Your task to perform on an android device: open app "YouTube Kids" (install if not already installed) Image 0: 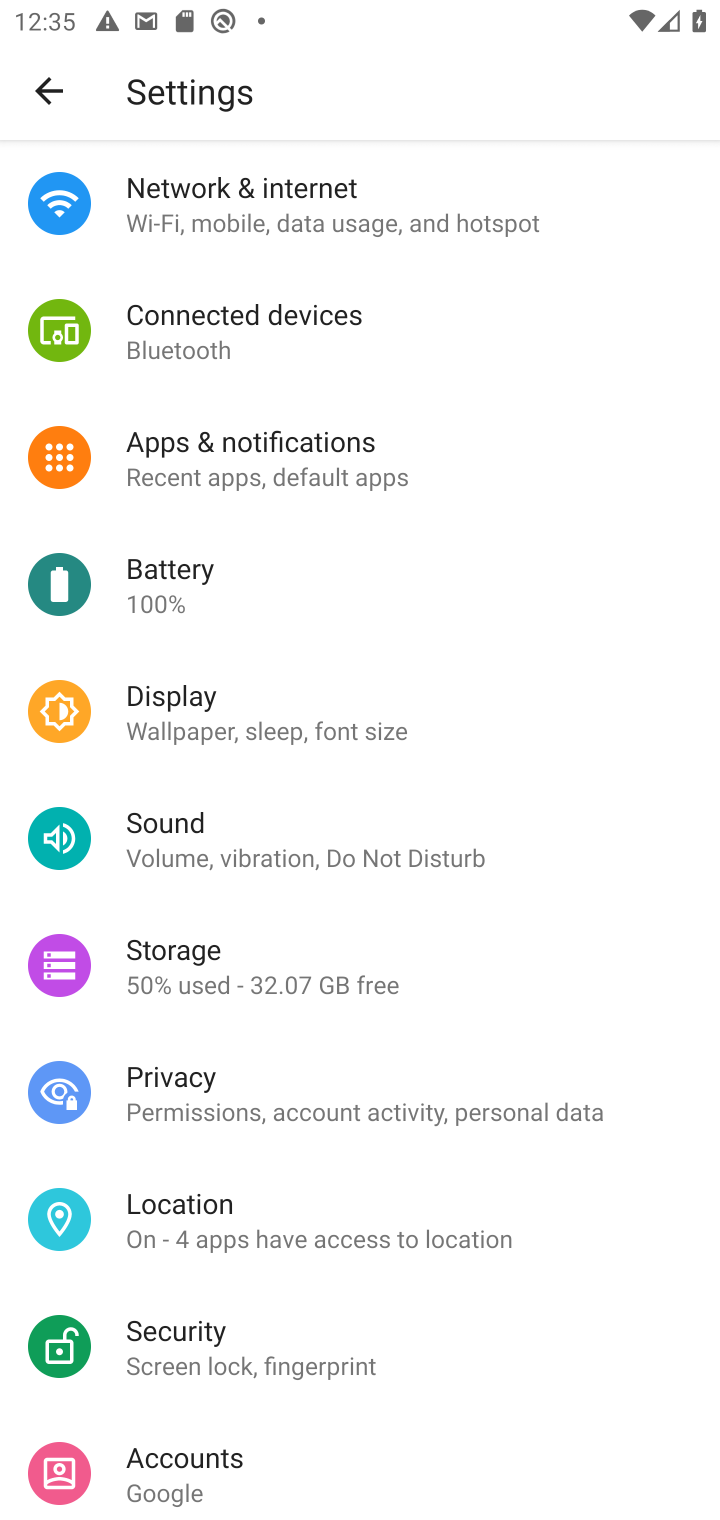
Step 0: press home button
Your task to perform on an android device: open app "YouTube Kids" (install if not already installed) Image 1: 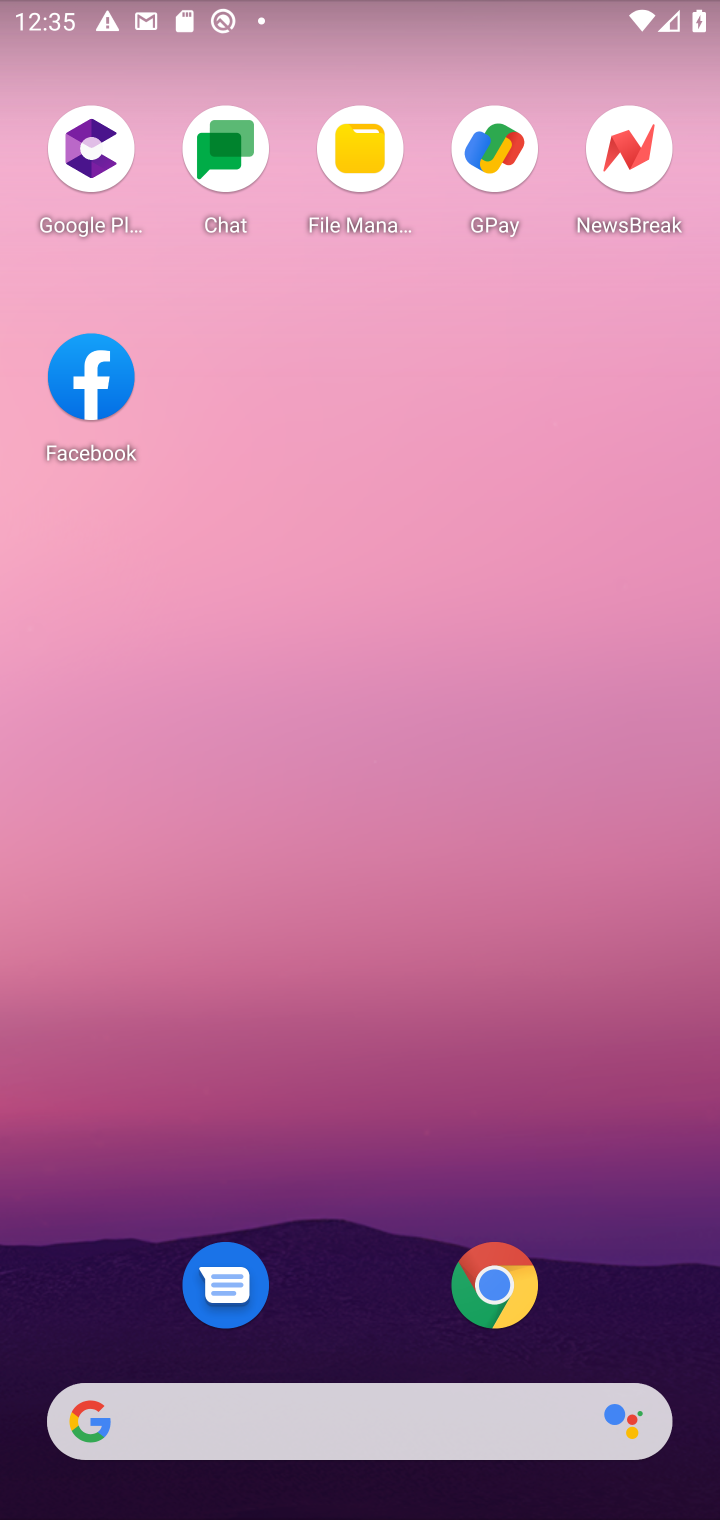
Step 1: drag from (356, 1180) to (472, 19)
Your task to perform on an android device: open app "YouTube Kids" (install if not already installed) Image 2: 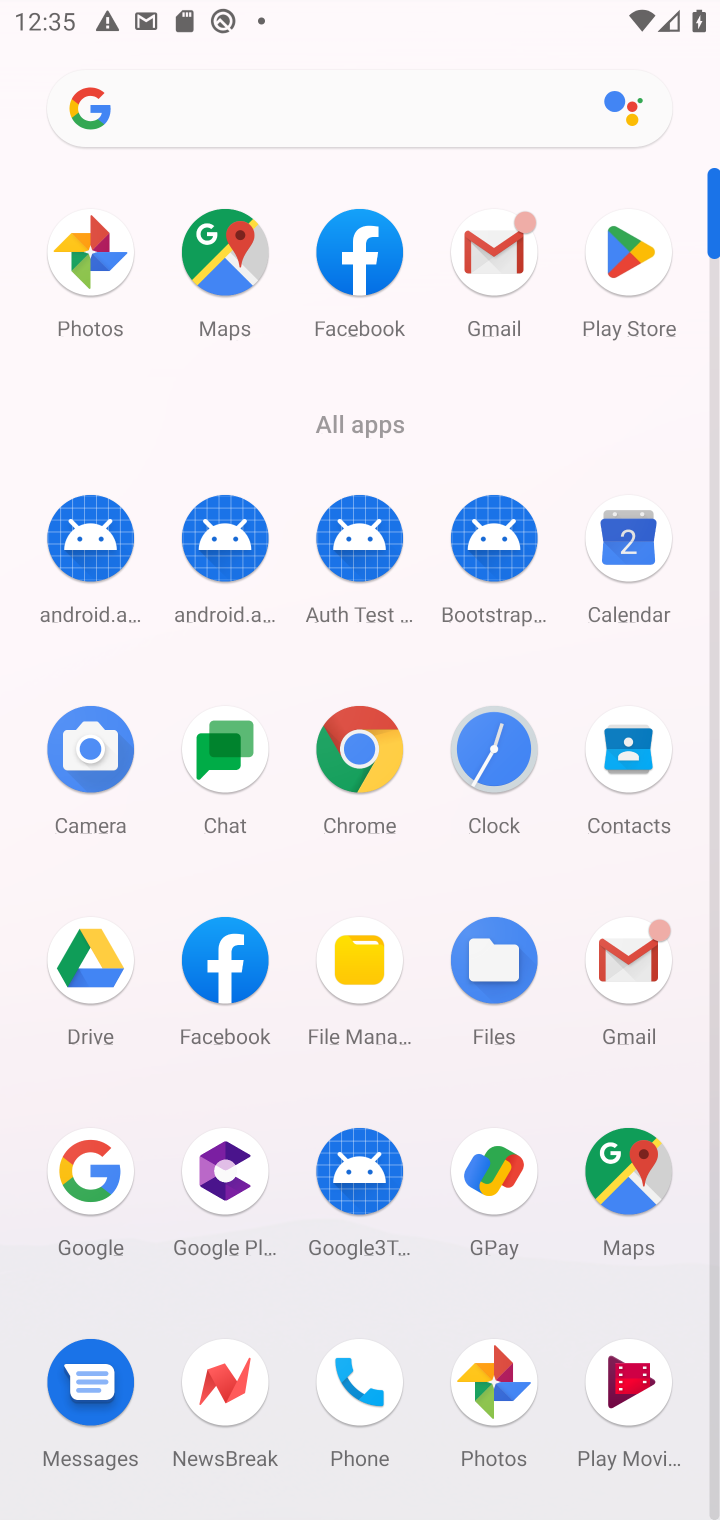
Step 2: drag from (425, 1361) to (500, 190)
Your task to perform on an android device: open app "YouTube Kids" (install if not already installed) Image 3: 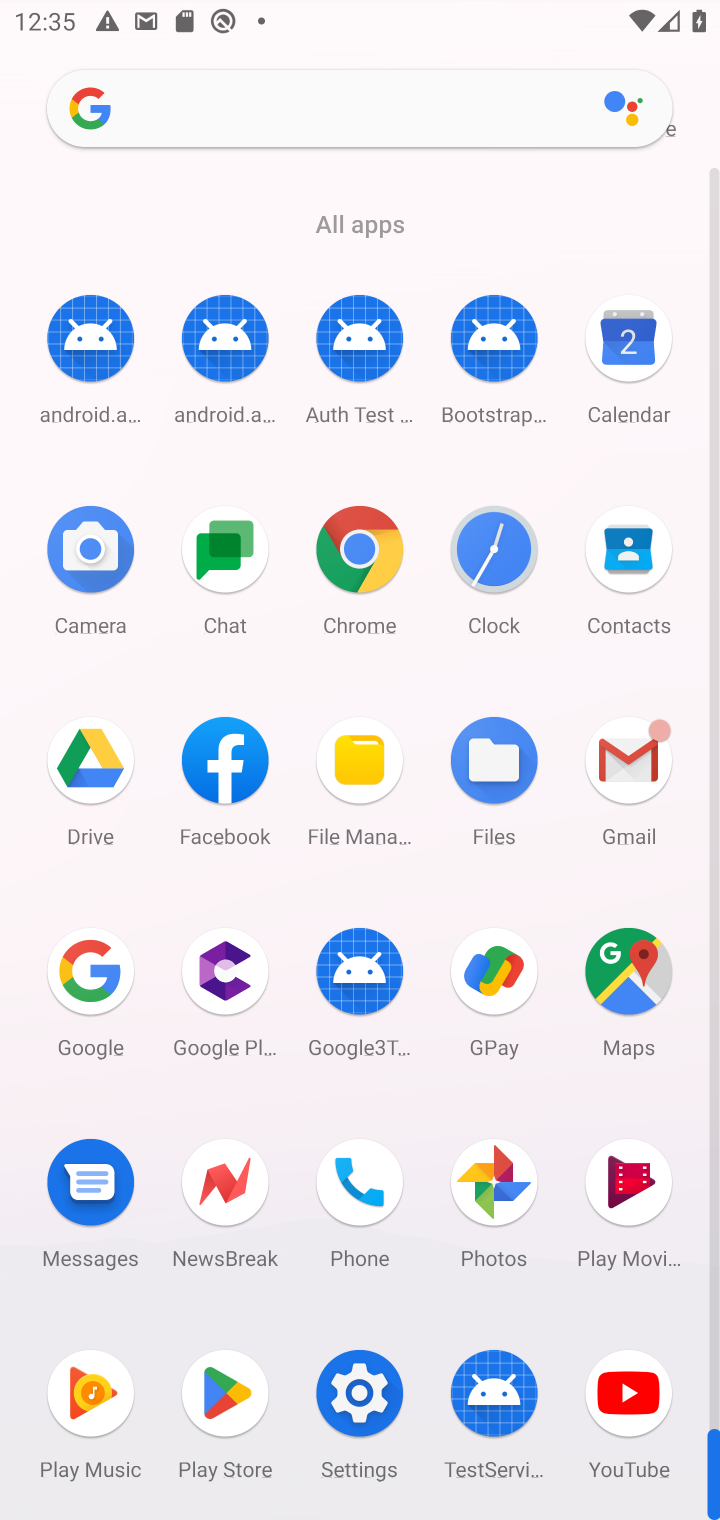
Step 3: click (626, 1382)
Your task to perform on an android device: open app "YouTube Kids" (install if not already installed) Image 4: 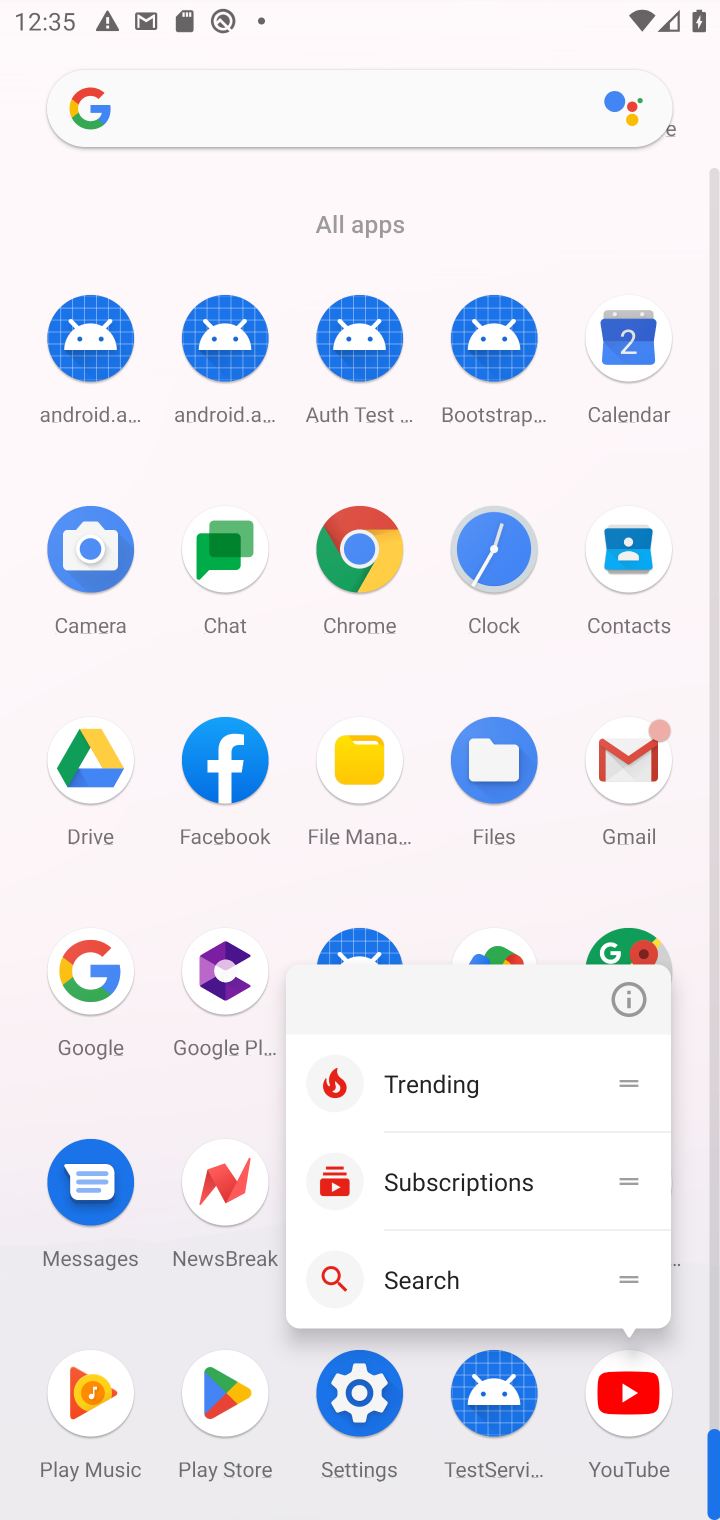
Step 4: click (619, 1405)
Your task to perform on an android device: open app "YouTube Kids" (install if not already installed) Image 5: 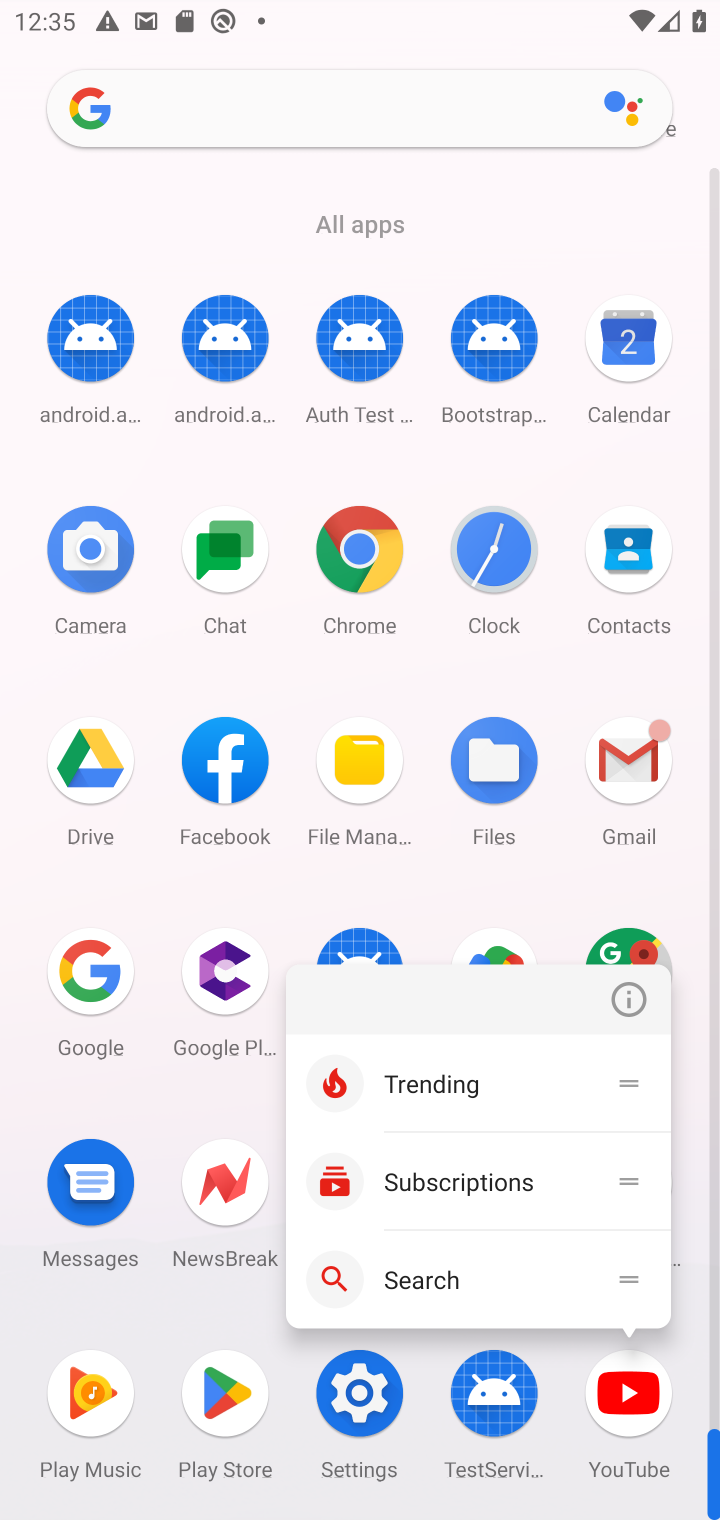
Step 5: click (617, 1395)
Your task to perform on an android device: open app "YouTube Kids" (install if not already installed) Image 6: 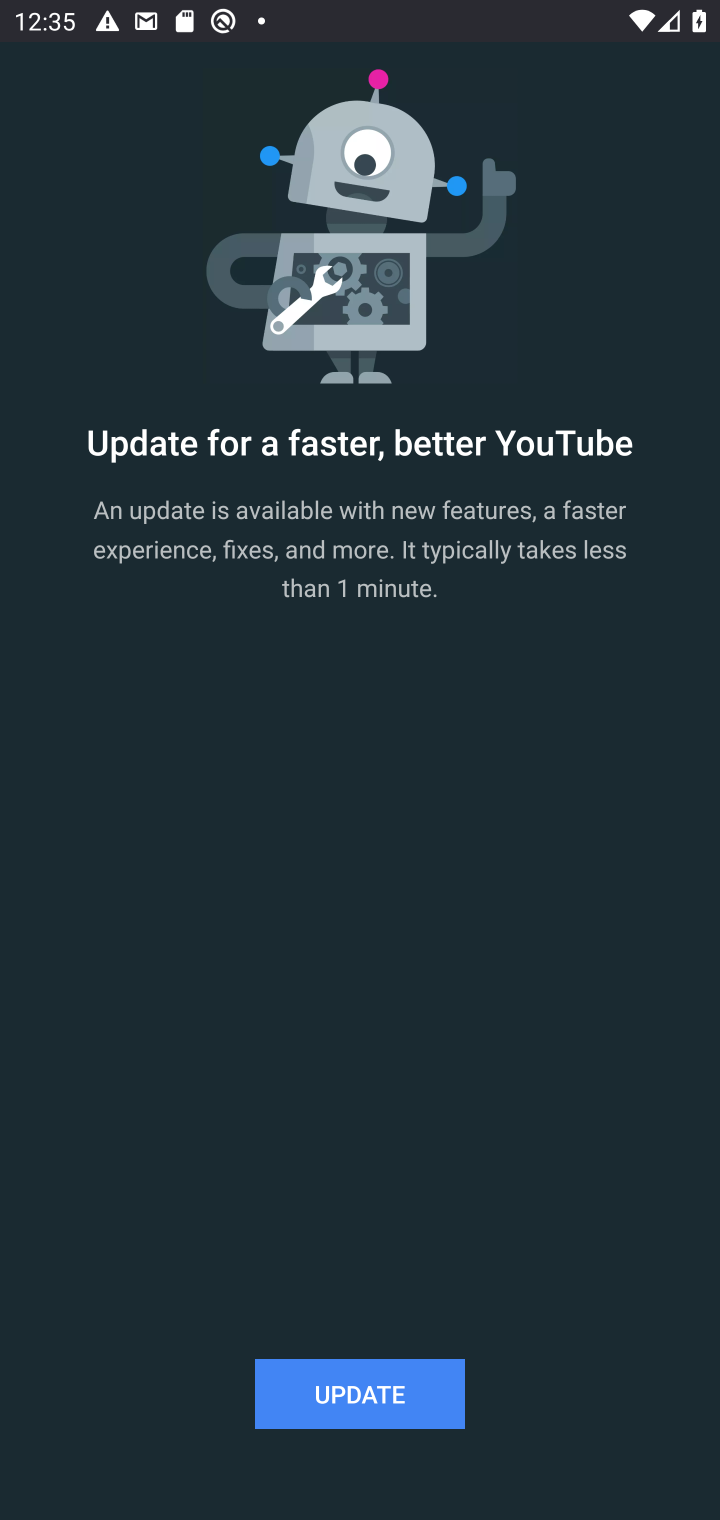
Step 6: task complete